Your task to perform on an android device: toggle improve location accuracy Image 0: 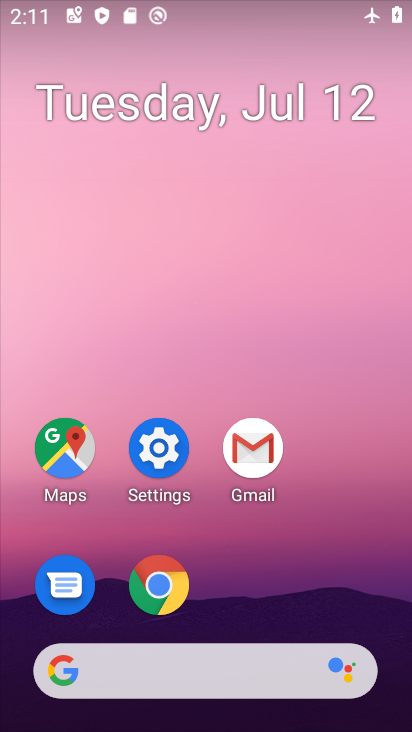
Step 0: click (153, 453)
Your task to perform on an android device: toggle improve location accuracy Image 1: 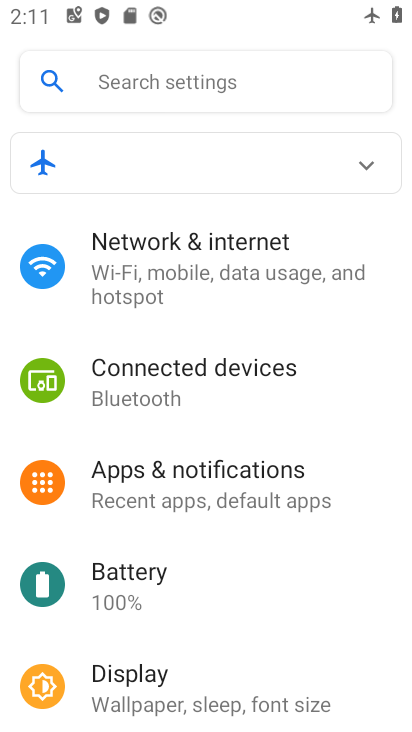
Step 1: drag from (216, 604) to (225, 341)
Your task to perform on an android device: toggle improve location accuracy Image 2: 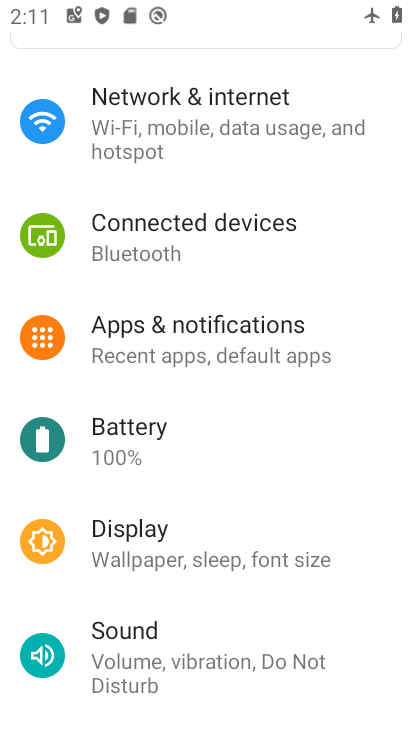
Step 2: drag from (172, 646) to (197, 331)
Your task to perform on an android device: toggle improve location accuracy Image 3: 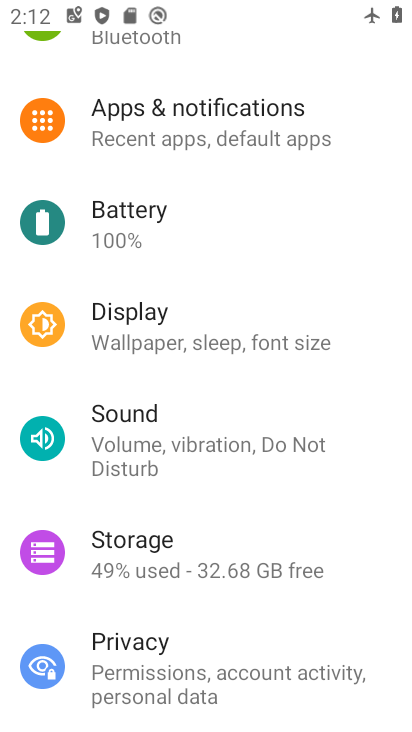
Step 3: drag from (280, 664) to (304, 344)
Your task to perform on an android device: toggle improve location accuracy Image 4: 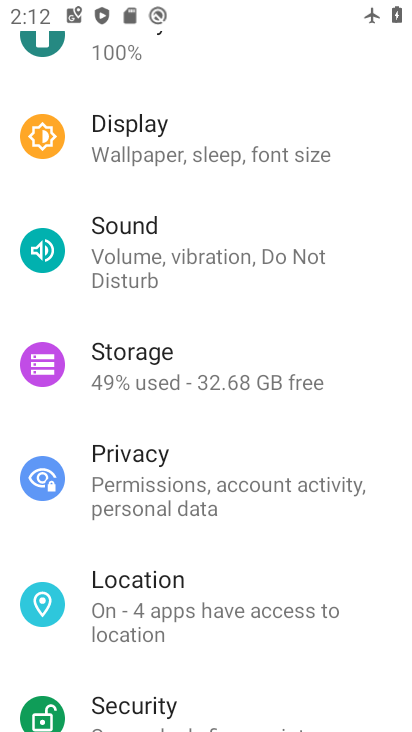
Step 4: click (126, 590)
Your task to perform on an android device: toggle improve location accuracy Image 5: 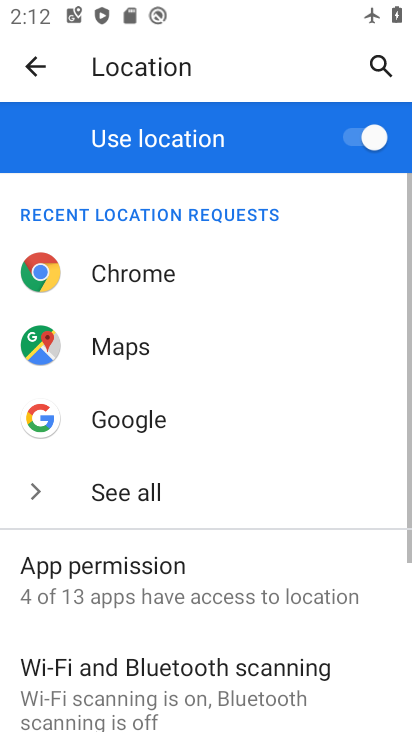
Step 5: drag from (113, 678) to (151, 245)
Your task to perform on an android device: toggle improve location accuracy Image 6: 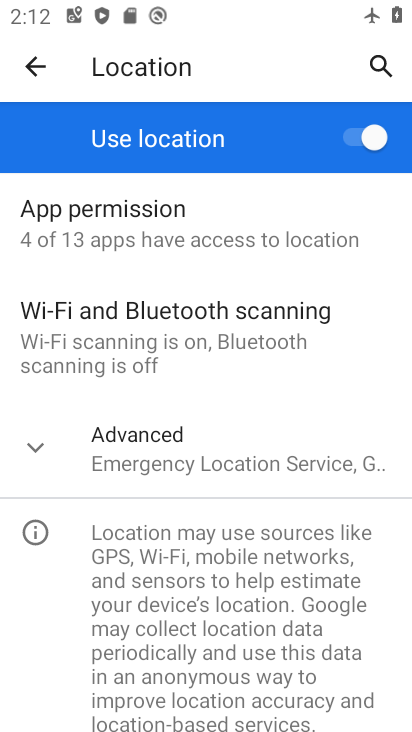
Step 6: click (25, 454)
Your task to perform on an android device: toggle improve location accuracy Image 7: 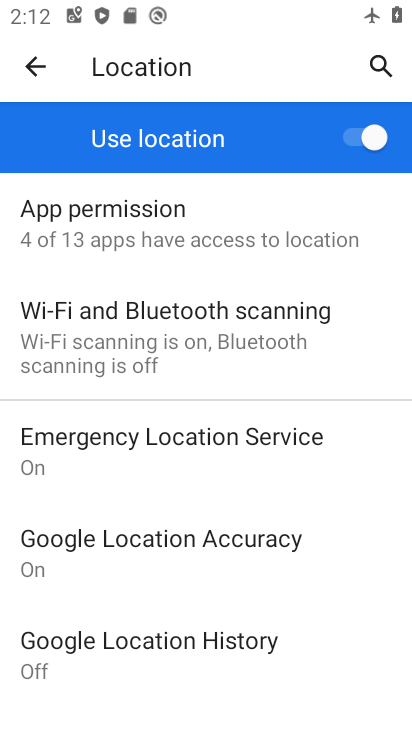
Step 7: click (76, 555)
Your task to perform on an android device: toggle improve location accuracy Image 8: 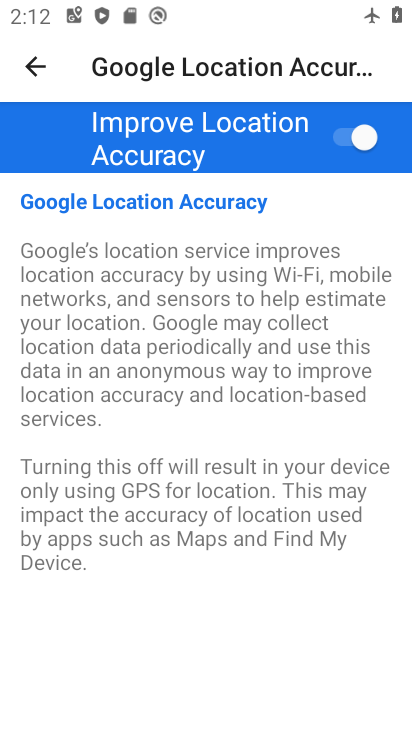
Step 8: click (336, 137)
Your task to perform on an android device: toggle improve location accuracy Image 9: 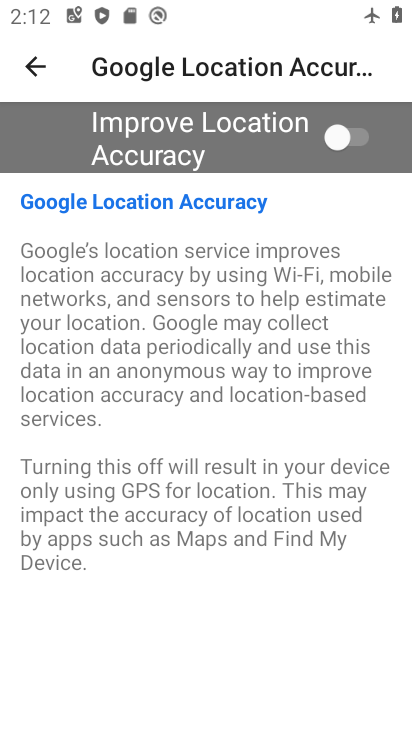
Step 9: task complete